Your task to perform on an android device: Search for sushi restaurants on Maps Image 0: 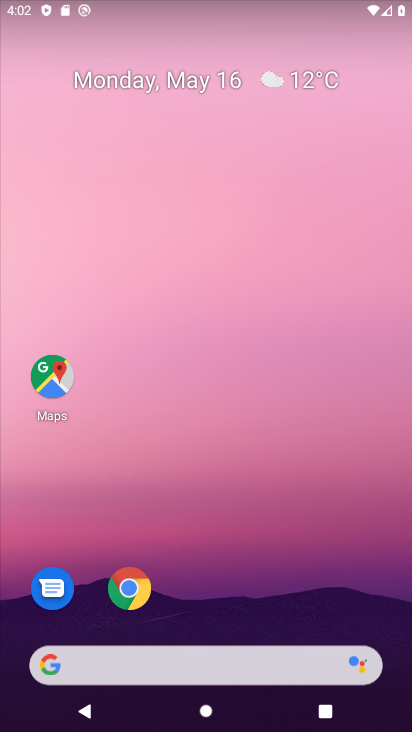
Step 0: click (66, 368)
Your task to perform on an android device: Search for sushi restaurants on Maps Image 1: 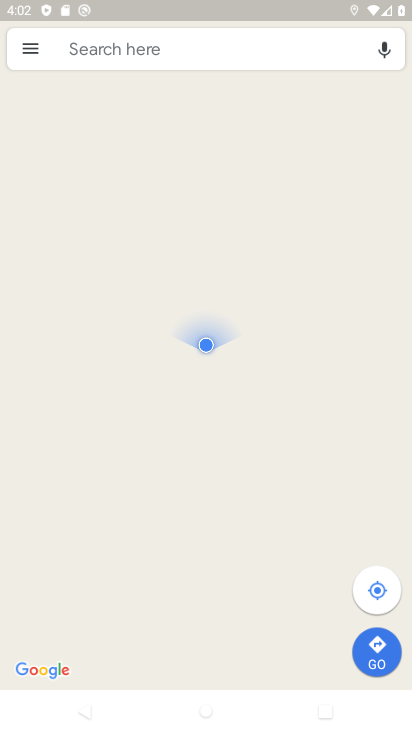
Step 1: click (96, 38)
Your task to perform on an android device: Search for sushi restaurants on Maps Image 2: 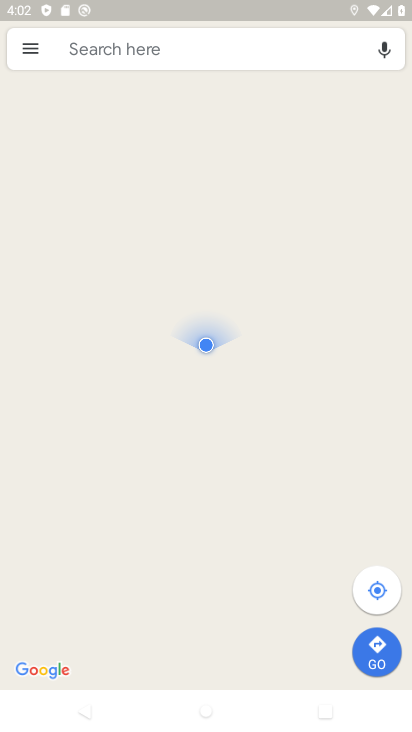
Step 2: click (105, 49)
Your task to perform on an android device: Search for sushi restaurants on Maps Image 3: 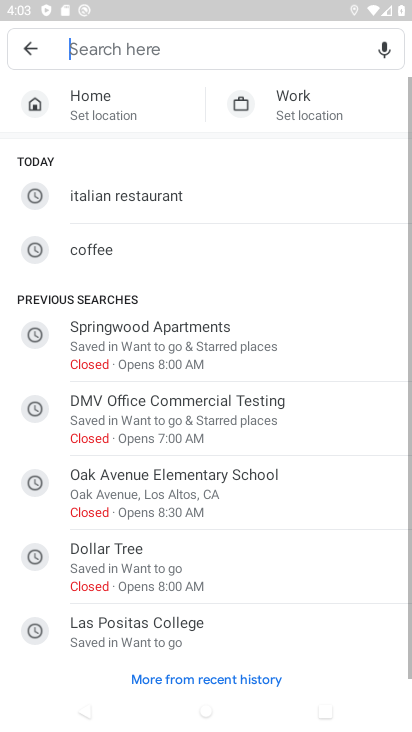
Step 3: click (221, 51)
Your task to perform on an android device: Search for sushi restaurants on Maps Image 4: 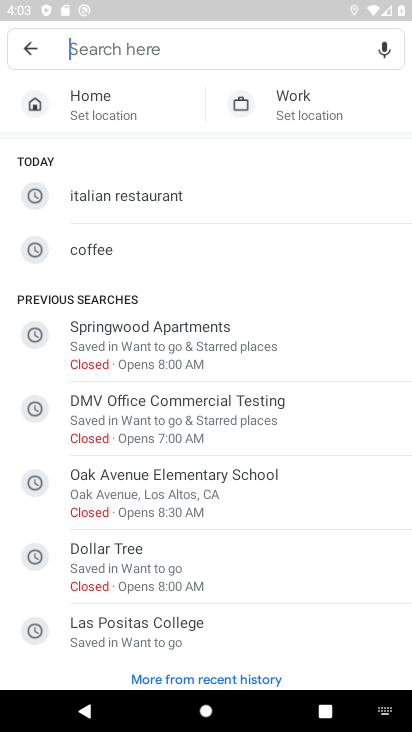
Step 4: type "sushi resturanys="
Your task to perform on an android device: Search for sushi restaurants on Maps Image 5: 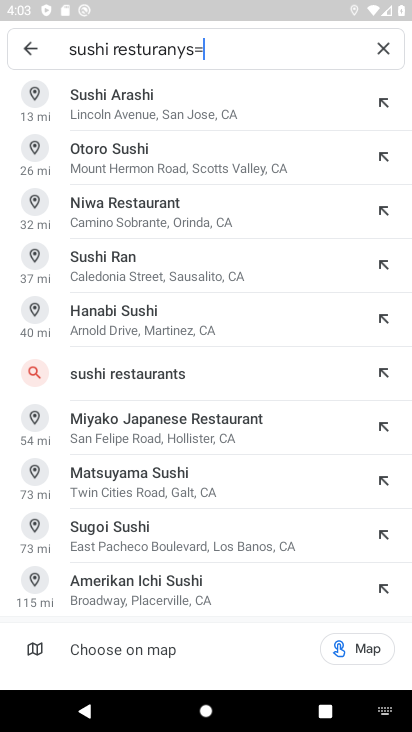
Step 5: click (106, 374)
Your task to perform on an android device: Search for sushi restaurants on Maps Image 6: 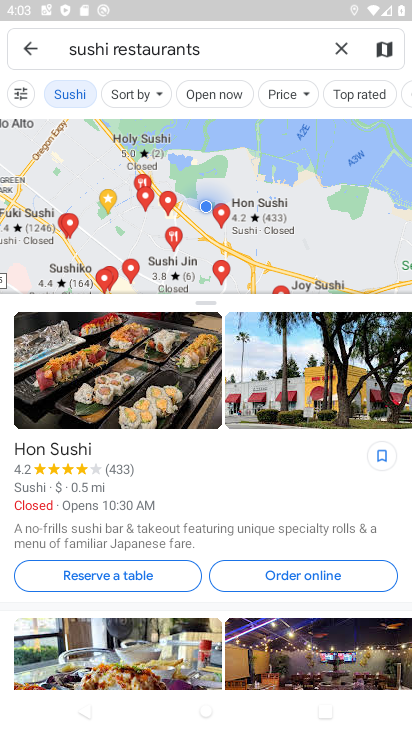
Step 6: task complete